Your task to perform on an android device: turn on data saver in the chrome app Image 0: 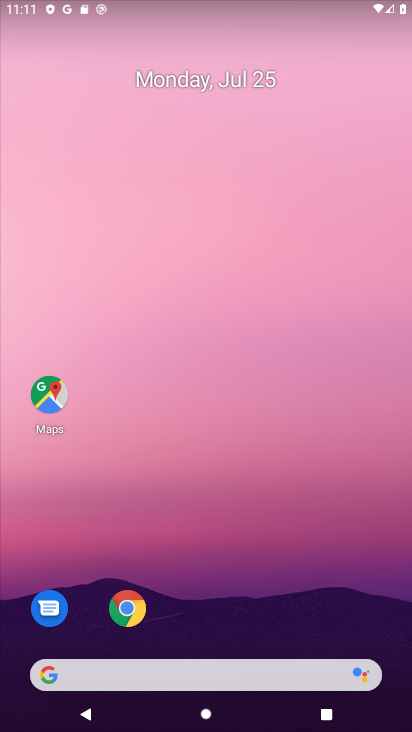
Step 0: click (133, 614)
Your task to perform on an android device: turn on data saver in the chrome app Image 1: 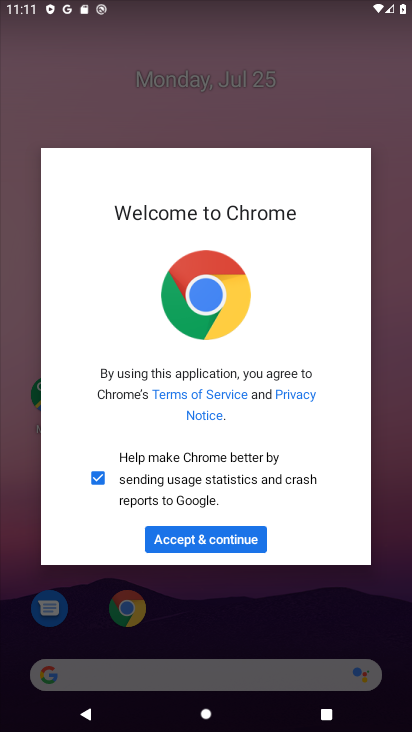
Step 1: click (210, 542)
Your task to perform on an android device: turn on data saver in the chrome app Image 2: 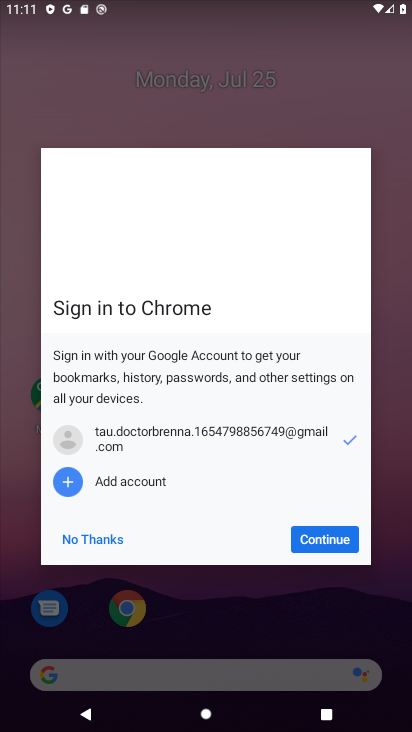
Step 2: click (323, 541)
Your task to perform on an android device: turn on data saver in the chrome app Image 3: 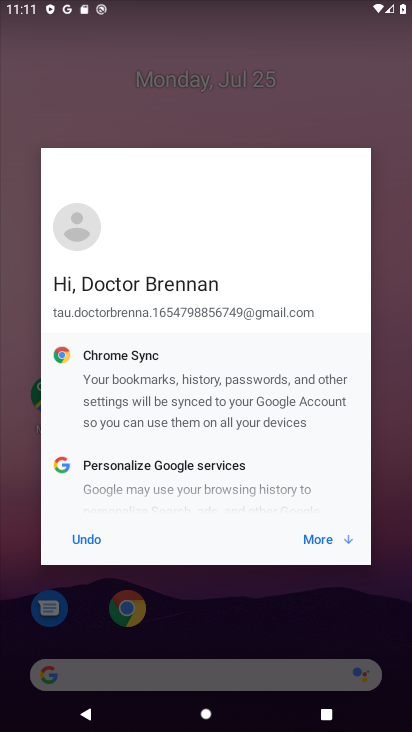
Step 3: click (323, 541)
Your task to perform on an android device: turn on data saver in the chrome app Image 4: 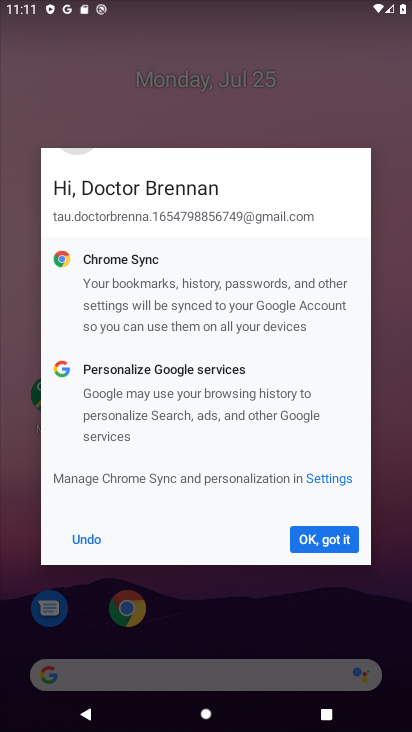
Step 4: click (323, 541)
Your task to perform on an android device: turn on data saver in the chrome app Image 5: 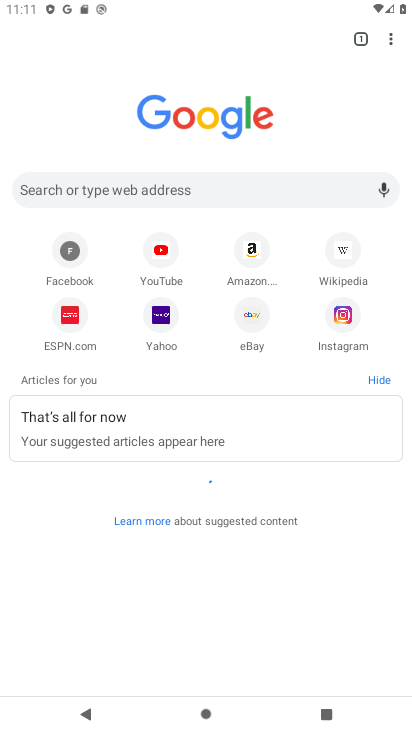
Step 5: click (396, 39)
Your task to perform on an android device: turn on data saver in the chrome app Image 6: 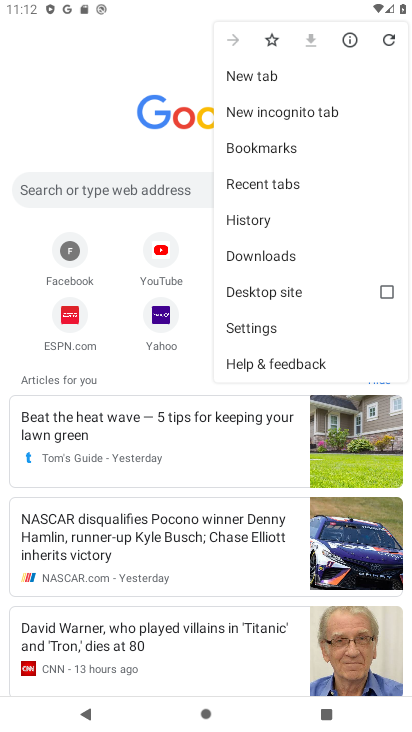
Step 6: click (246, 323)
Your task to perform on an android device: turn on data saver in the chrome app Image 7: 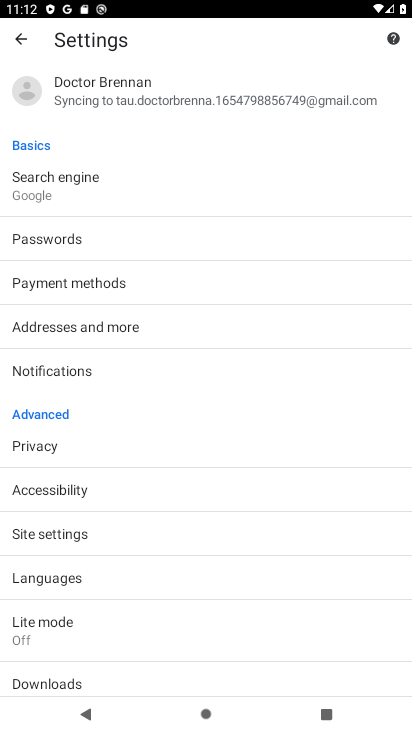
Step 7: click (34, 629)
Your task to perform on an android device: turn on data saver in the chrome app Image 8: 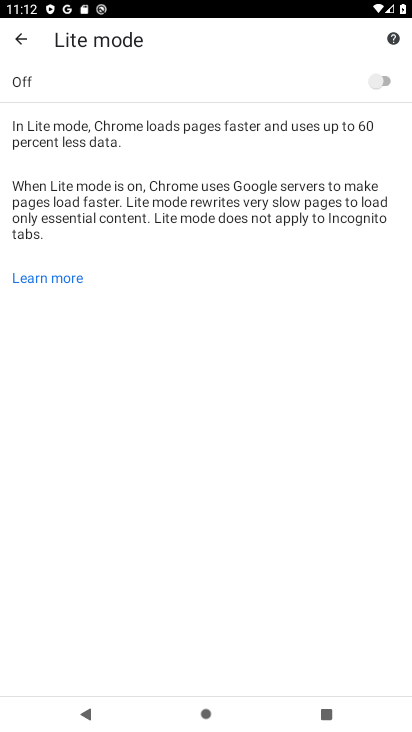
Step 8: click (387, 83)
Your task to perform on an android device: turn on data saver in the chrome app Image 9: 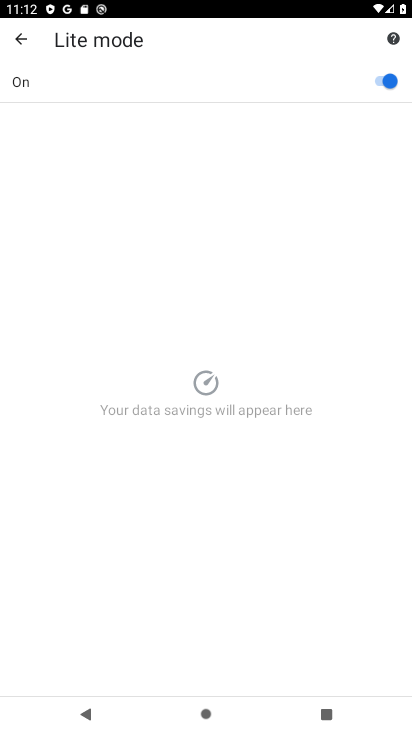
Step 9: task complete